Your task to perform on an android device: open a bookmark in the chrome app Image 0: 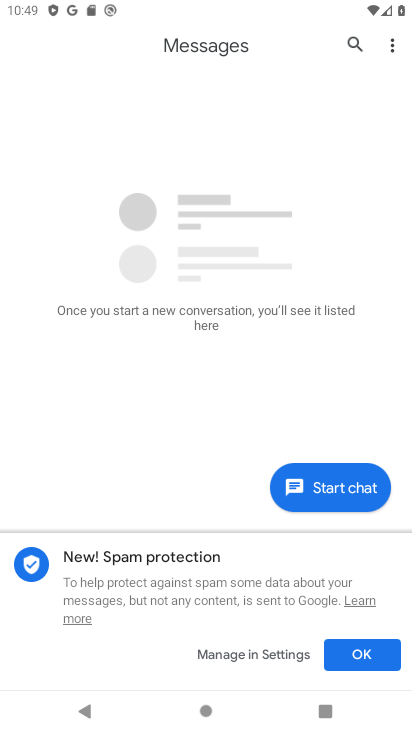
Step 0: press home button
Your task to perform on an android device: open a bookmark in the chrome app Image 1: 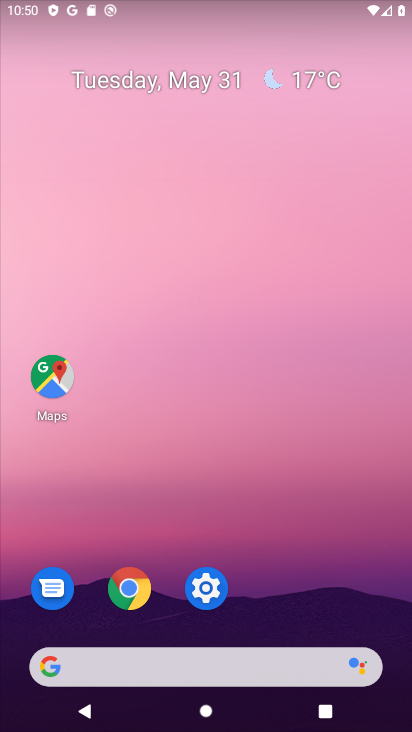
Step 1: click (136, 575)
Your task to perform on an android device: open a bookmark in the chrome app Image 2: 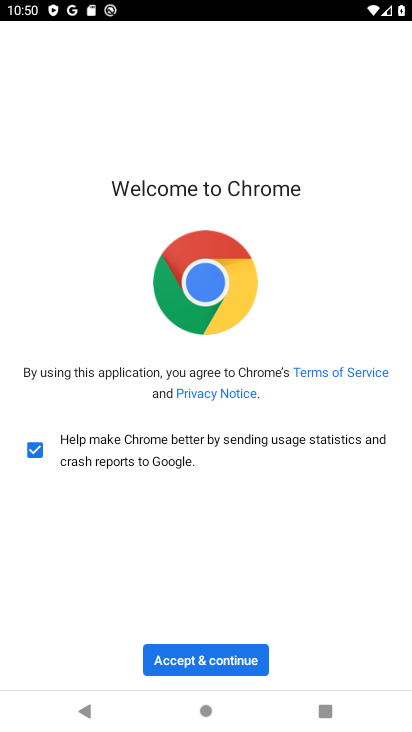
Step 2: click (208, 646)
Your task to perform on an android device: open a bookmark in the chrome app Image 3: 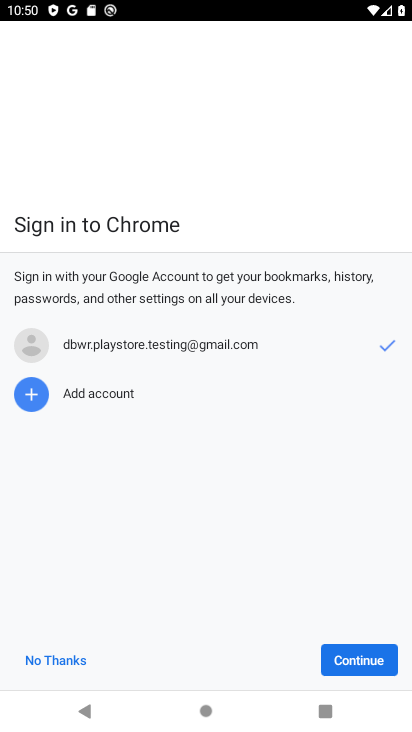
Step 3: click (361, 661)
Your task to perform on an android device: open a bookmark in the chrome app Image 4: 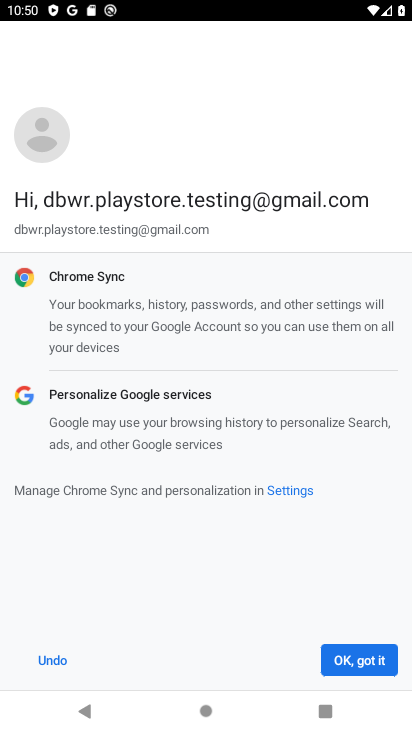
Step 4: click (361, 661)
Your task to perform on an android device: open a bookmark in the chrome app Image 5: 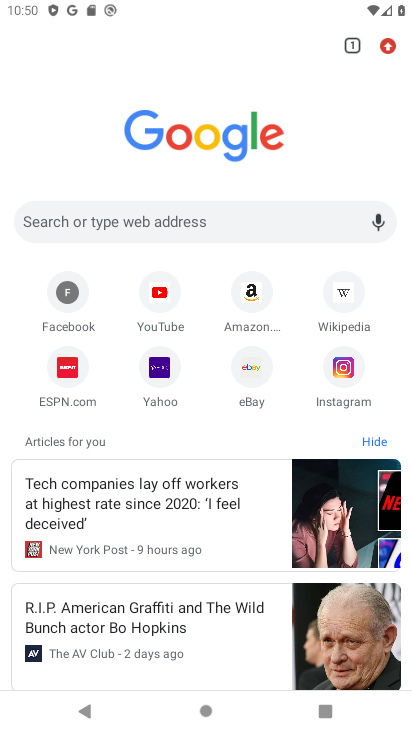
Step 5: click (388, 43)
Your task to perform on an android device: open a bookmark in the chrome app Image 6: 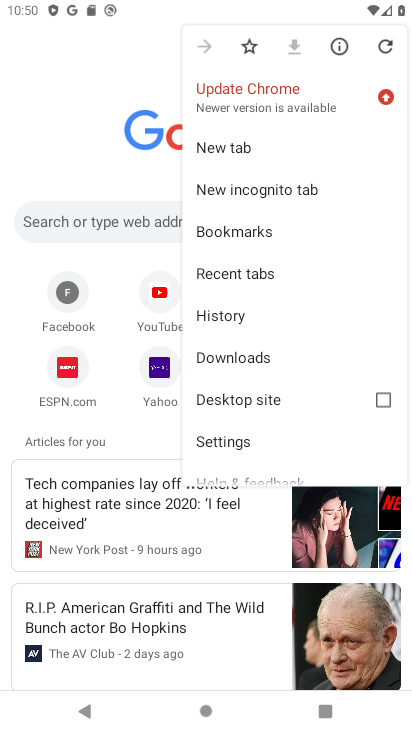
Step 6: click (233, 236)
Your task to perform on an android device: open a bookmark in the chrome app Image 7: 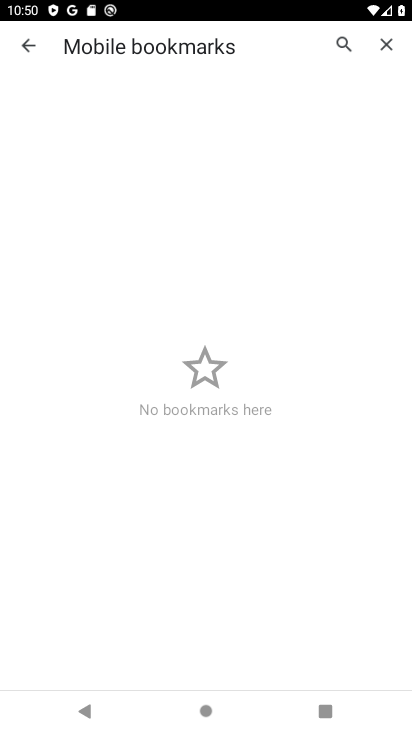
Step 7: task complete